Your task to perform on an android device: Go to Amazon Image 0: 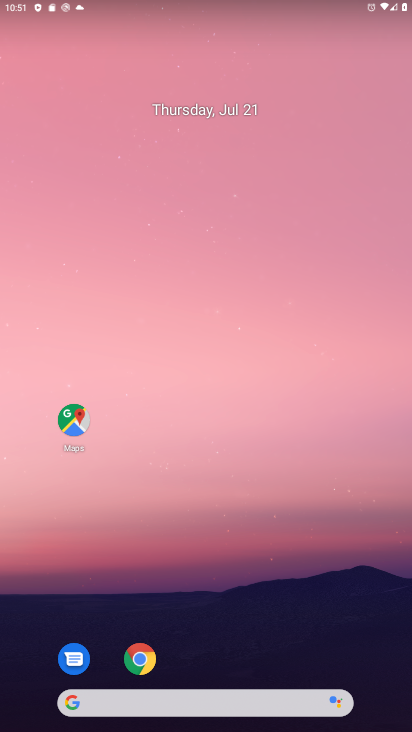
Step 0: click (158, 662)
Your task to perform on an android device: Go to Amazon Image 1: 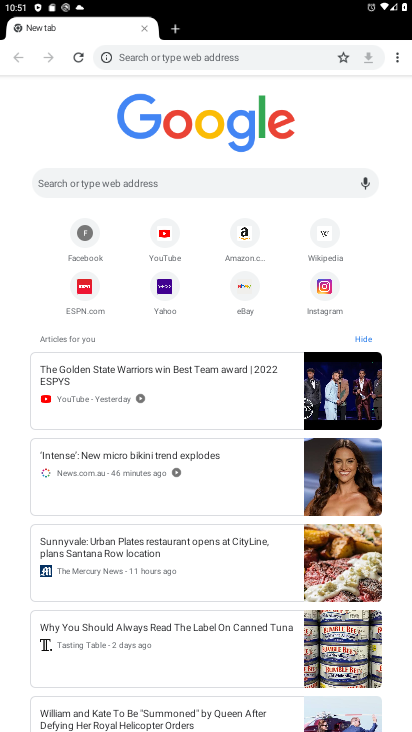
Step 1: click (239, 224)
Your task to perform on an android device: Go to Amazon Image 2: 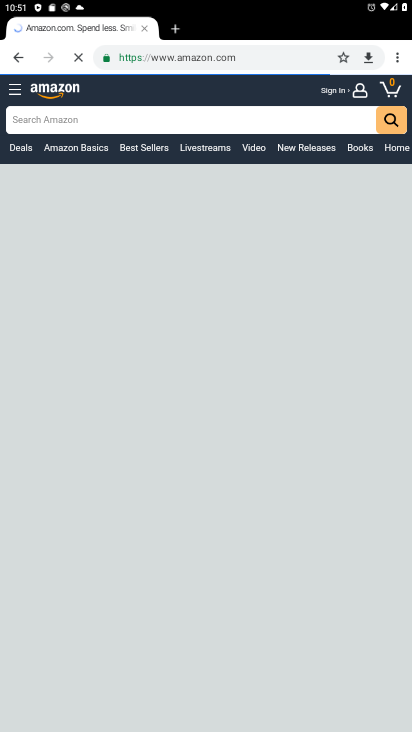
Step 2: task complete